Your task to perform on an android device: Go to notification settings Image 0: 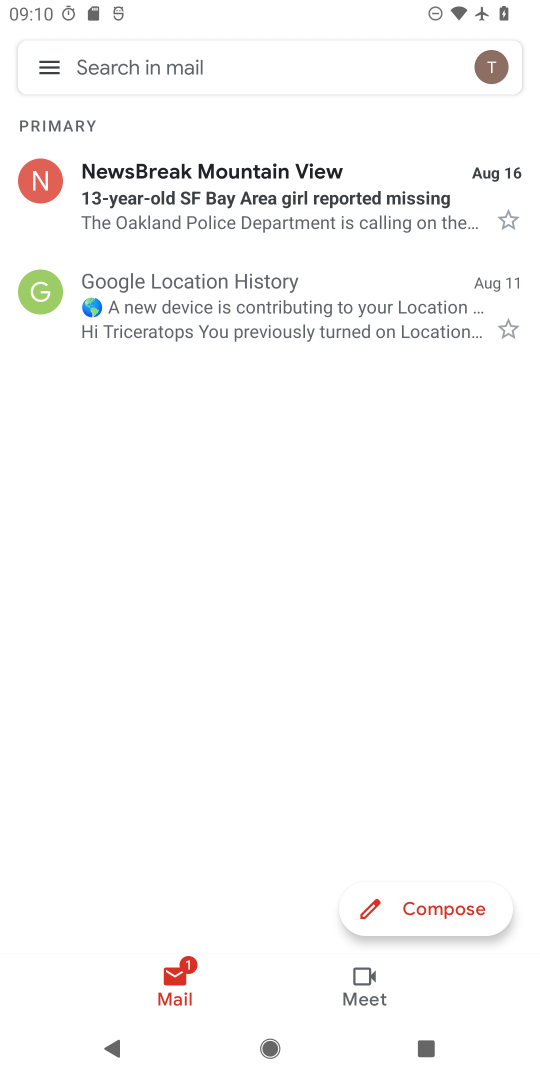
Step 0: press home button
Your task to perform on an android device: Go to notification settings Image 1: 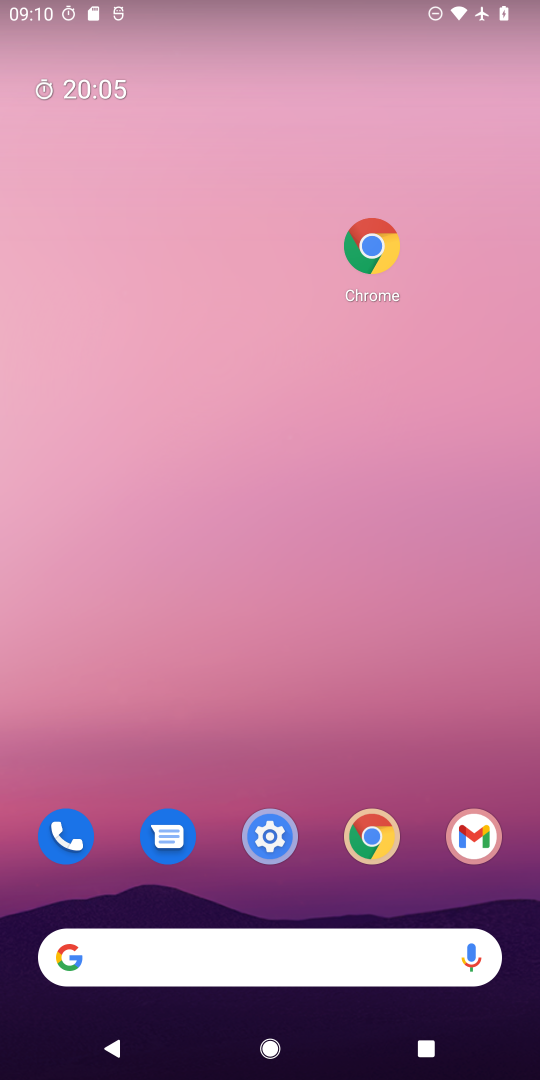
Step 1: drag from (300, 915) to (304, 165)
Your task to perform on an android device: Go to notification settings Image 2: 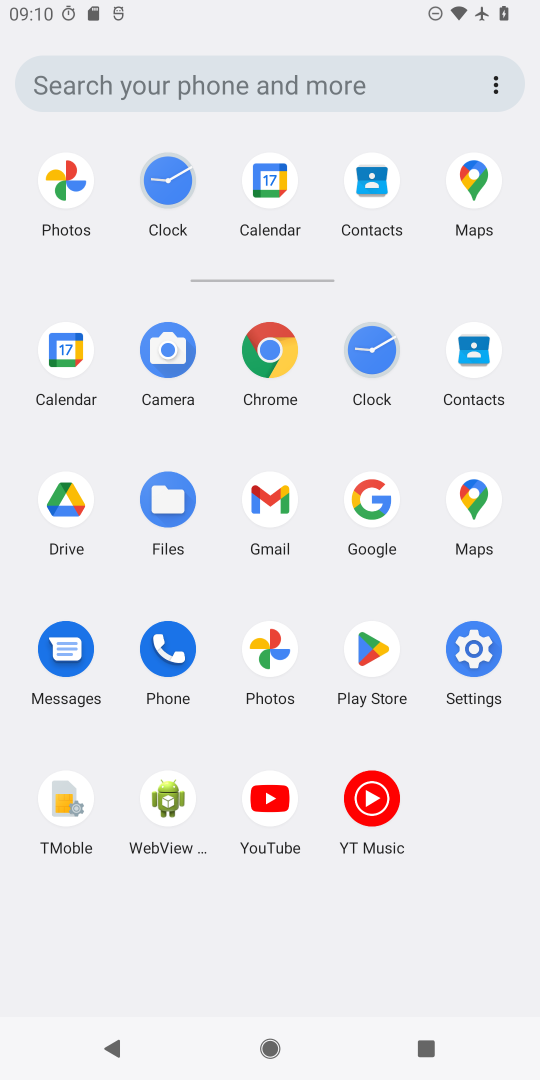
Step 2: click (496, 635)
Your task to perform on an android device: Go to notification settings Image 3: 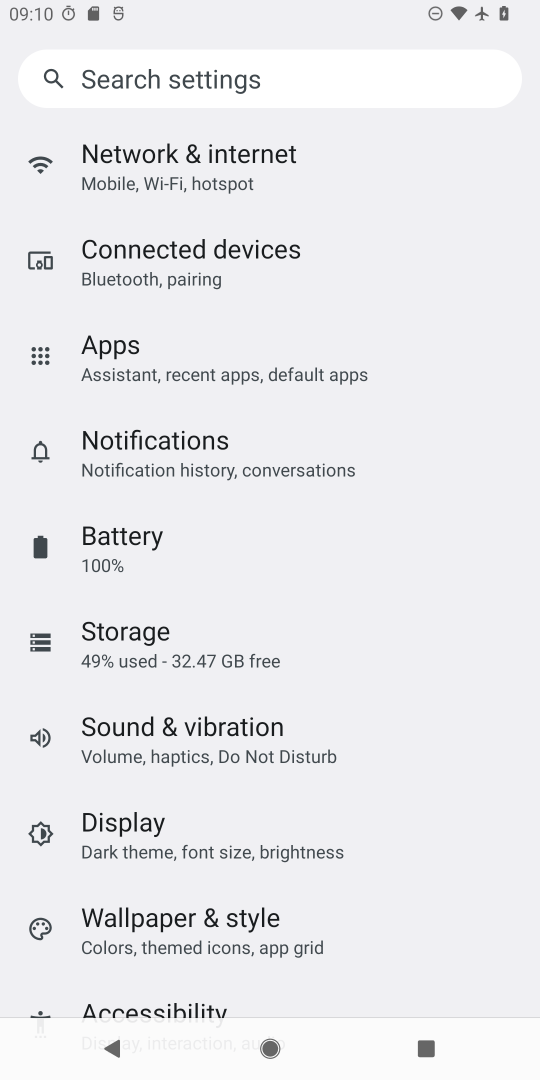
Step 3: click (231, 435)
Your task to perform on an android device: Go to notification settings Image 4: 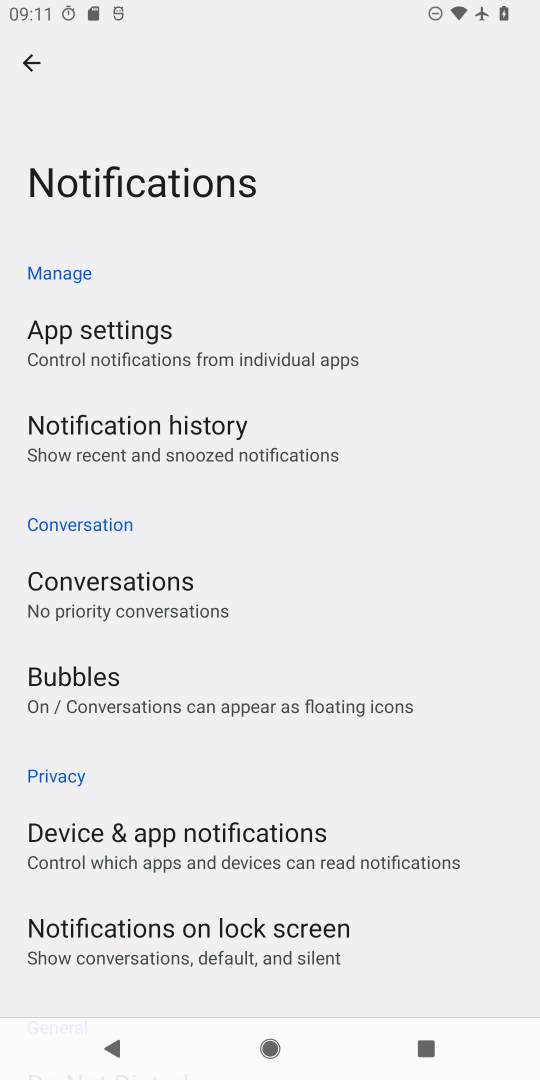
Step 4: task complete